Your task to perform on an android device: When is my next appointment? Image 0: 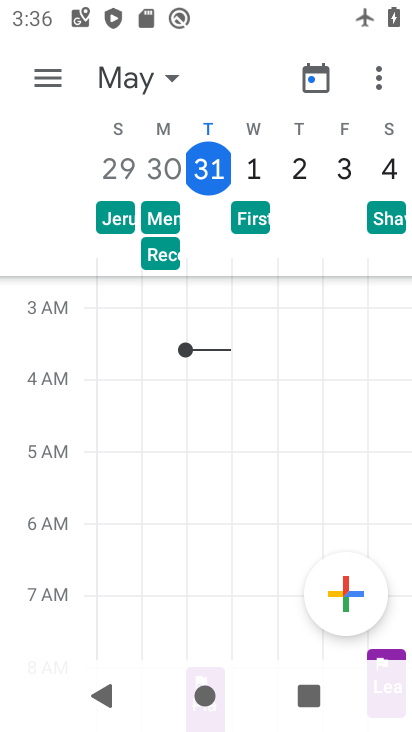
Step 0: press back button
Your task to perform on an android device: When is my next appointment? Image 1: 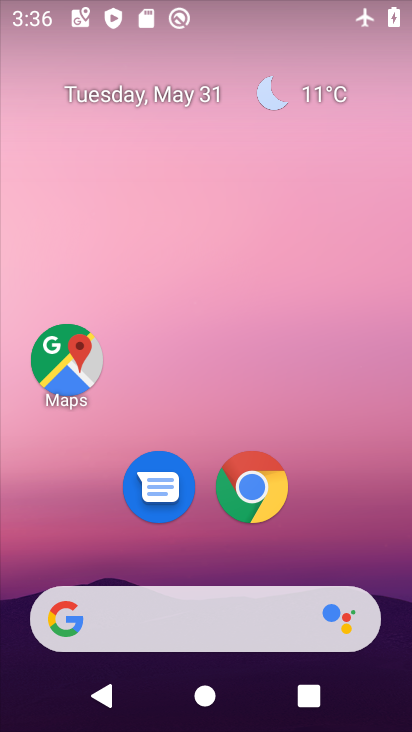
Step 1: drag from (330, 526) to (275, 104)
Your task to perform on an android device: When is my next appointment? Image 2: 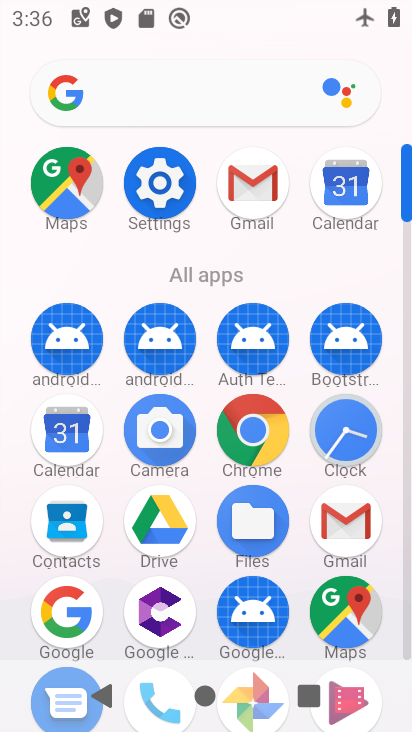
Step 2: click (347, 189)
Your task to perform on an android device: When is my next appointment? Image 3: 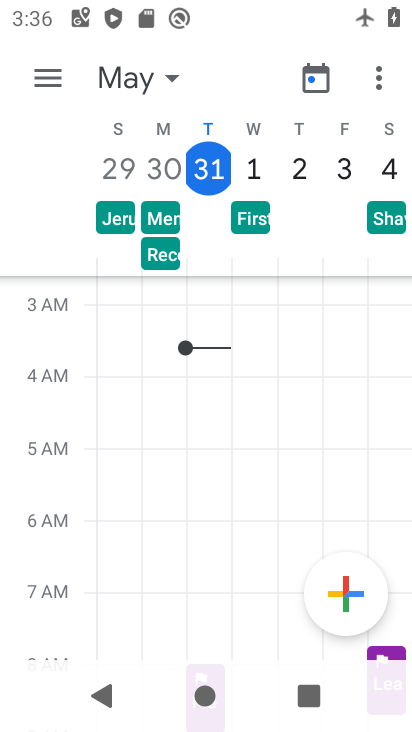
Step 3: click (314, 77)
Your task to perform on an android device: When is my next appointment? Image 4: 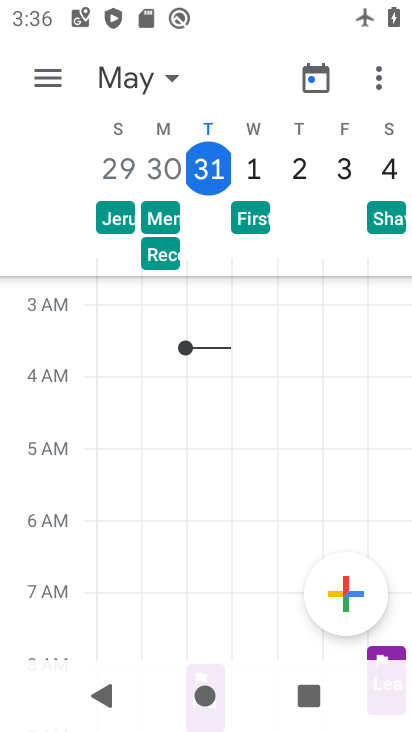
Step 4: click (169, 81)
Your task to perform on an android device: When is my next appointment? Image 5: 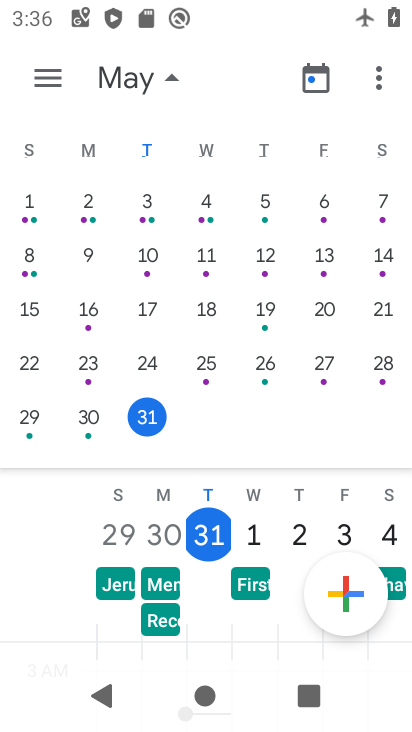
Step 5: drag from (375, 328) to (44, 345)
Your task to perform on an android device: When is my next appointment? Image 6: 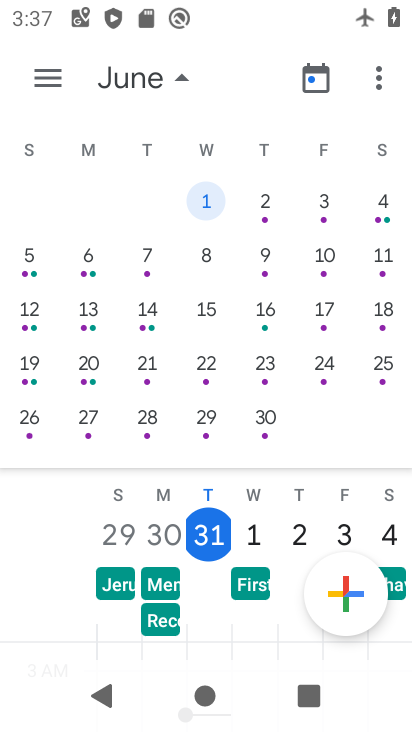
Step 6: click (267, 199)
Your task to perform on an android device: When is my next appointment? Image 7: 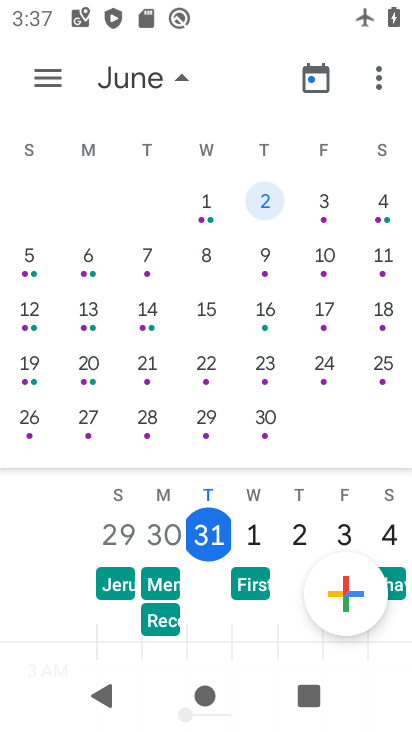
Step 7: click (42, 82)
Your task to perform on an android device: When is my next appointment? Image 8: 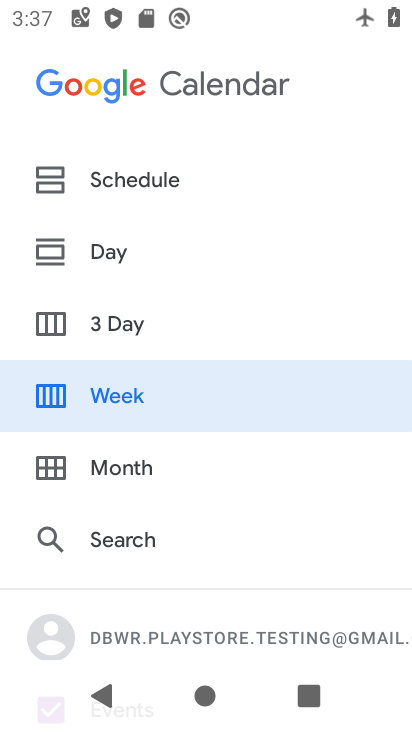
Step 8: click (110, 170)
Your task to perform on an android device: When is my next appointment? Image 9: 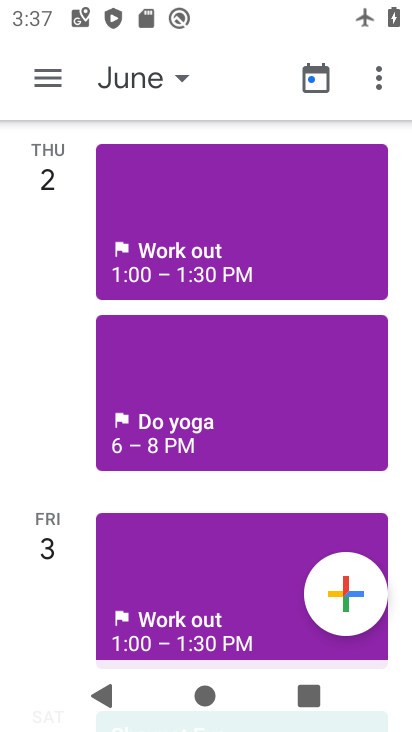
Step 9: task complete